Your task to perform on an android device: change the clock style Image 0: 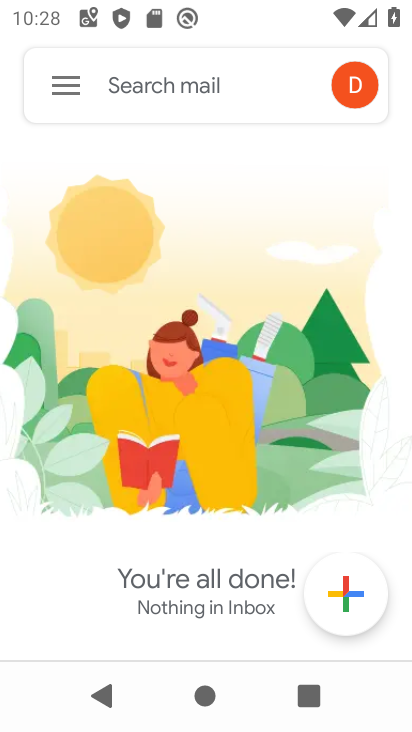
Step 0: press back button
Your task to perform on an android device: change the clock style Image 1: 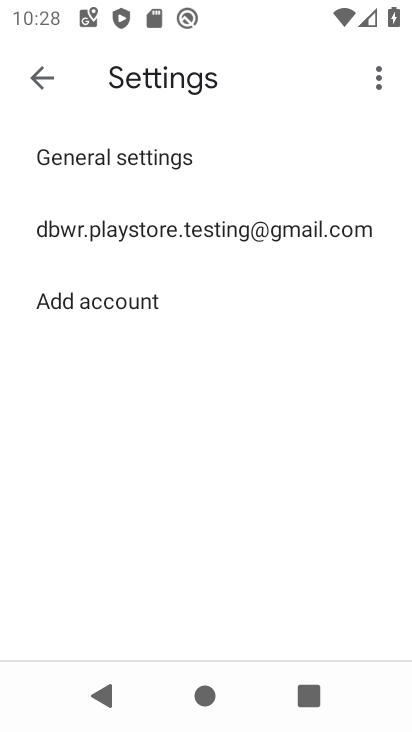
Step 1: press home button
Your task to perform on an android device: change the clock style Image 2: 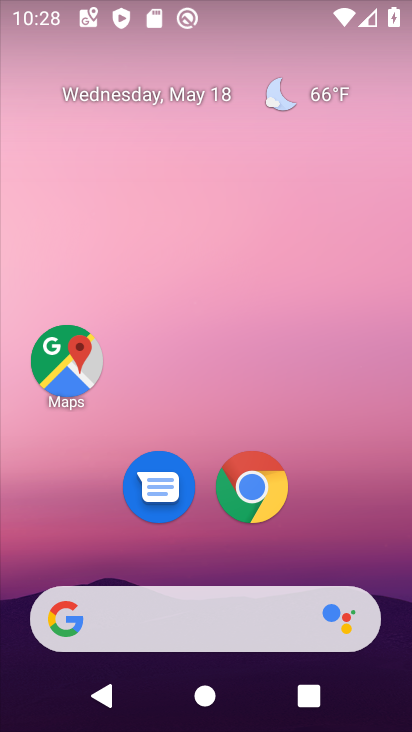
Step 2: drag from (237, 559) to (310, 334)
Your task to perform on an android device: change the clock style Image 3: 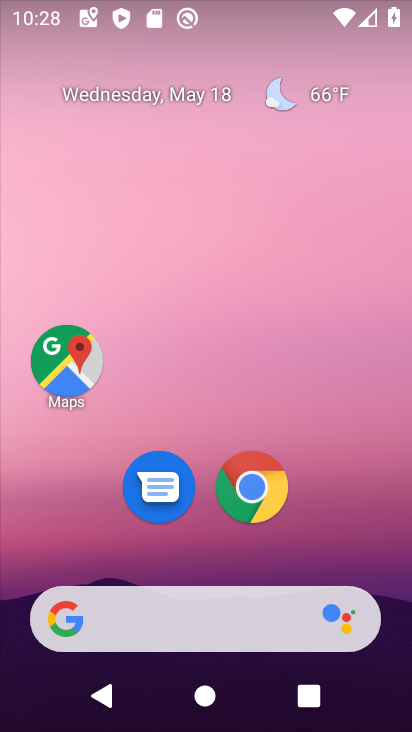
Step 3: drag from (285, 545) to (409, 364)
Your task to perform on an android device: change the clock style Image 4: 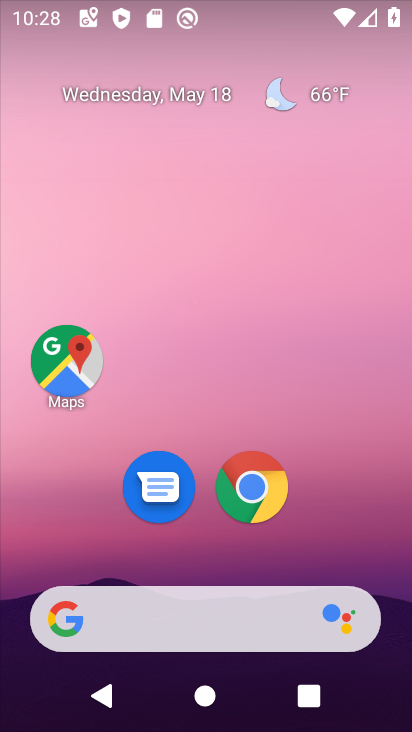
Step 4: drag from (278, 596) to (336, 2)
Your task to perform on an android device: change the clock style Image 5: 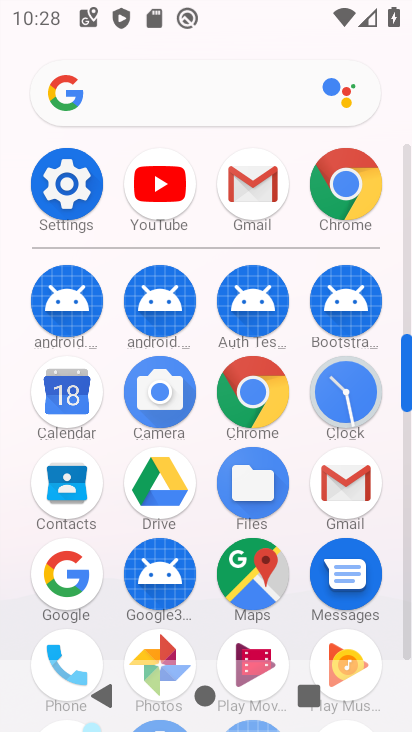
Step 5: click (350, 388)
Your task to perform on an android device: change the clock style Image 6: 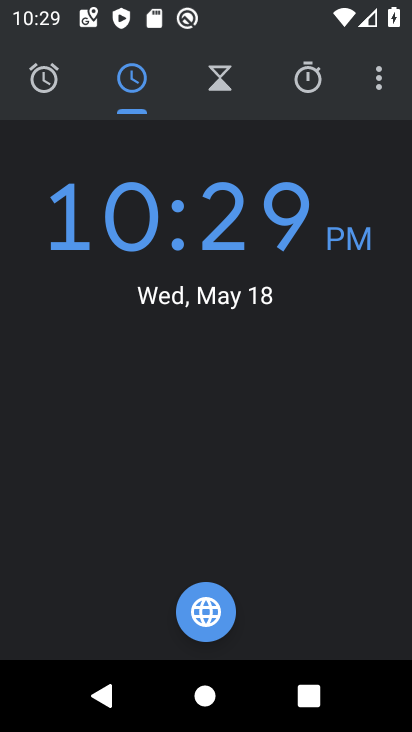
Step 6: click (373, 57)
Your task to perform on an android device: change the clock style Image 7: 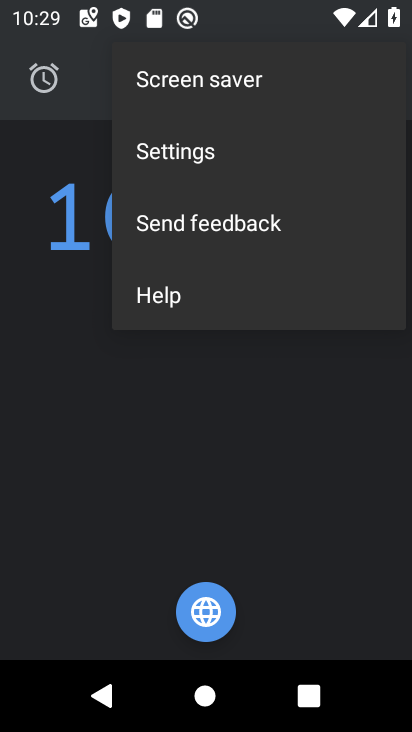
Step 7: click (278, 139)
Your task to perform on an android device: change the clock style Image 8: 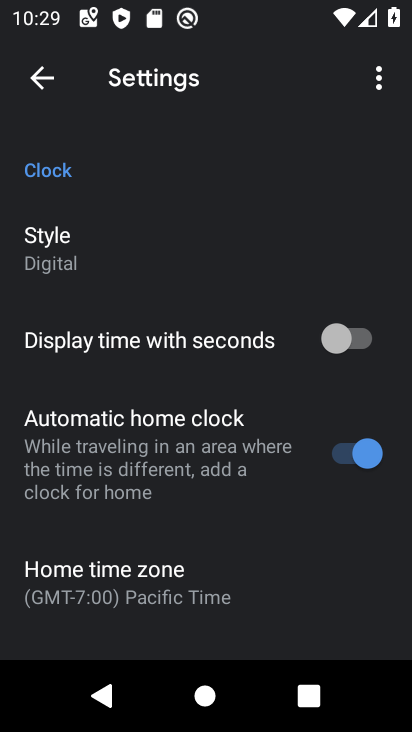
Step 8: click (95, 240)
Your task to perform on an android device: change the clock style Image 9: 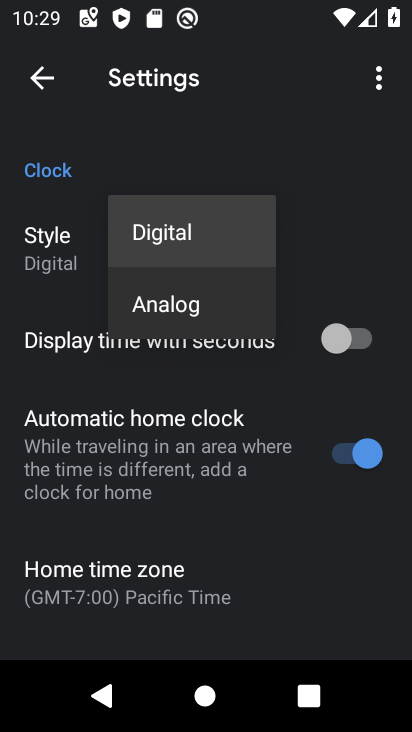
Step 9: click (167, 315)
Your task to perform on an android device: change the clock style Image 10: 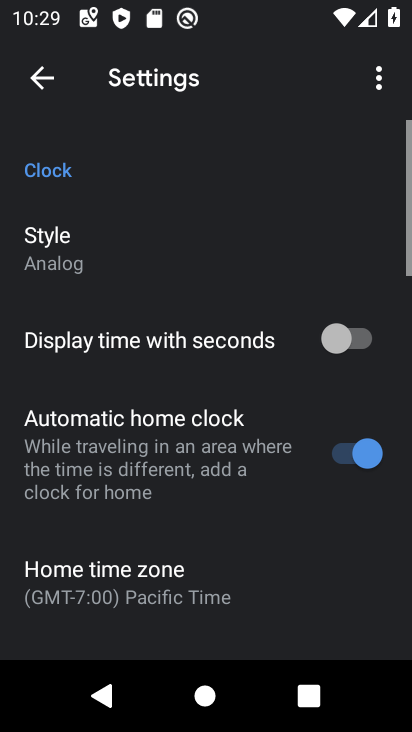
Step 10: task complete